Your task to perform on an android device: allow notifications from all sites in the chrome app Image 0: 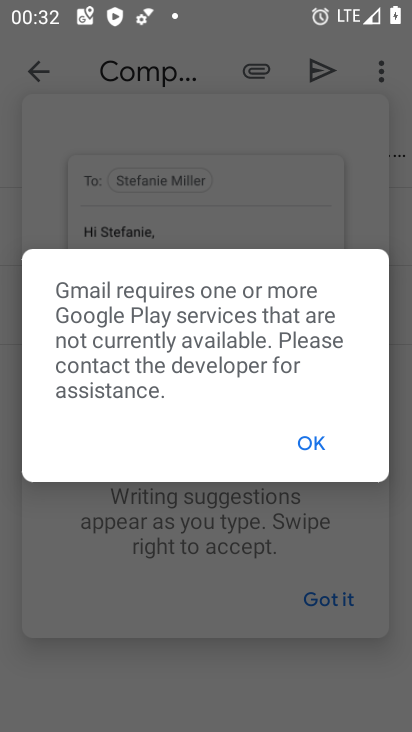
Step 0: press home button
Your task to perform on an android device: allow notifications from all sites in the chrome app Image 1: 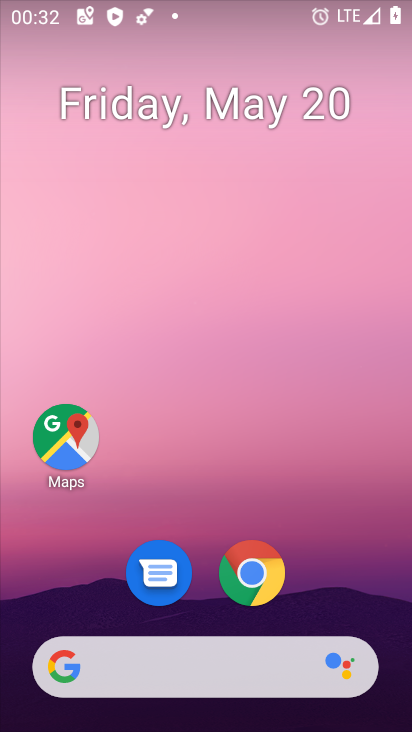
Step 1: click (252, 587)
Your task to perform on an android device: allow notifications from all sites in the chrome app Image 2: 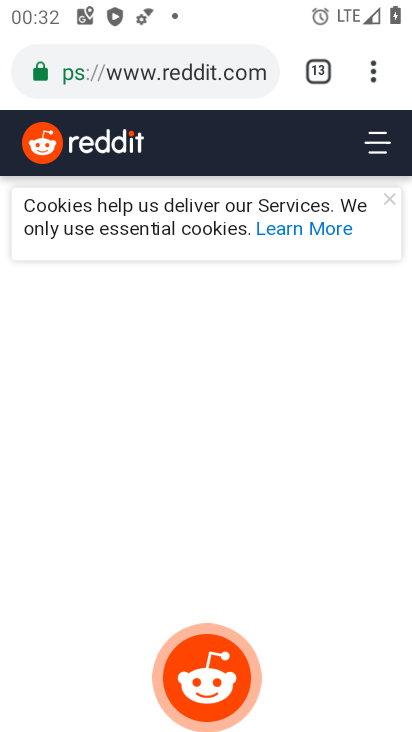
Step 2: click (353, 75)
Your task to perform on an android device: allow notifications from all sites in the chrome app Image 3: 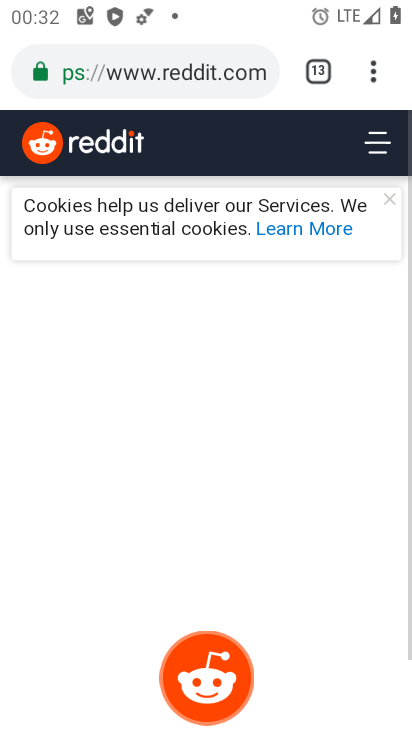
Step 3: click (368, 73)
Your task to perform on an android device: allow notifications from all sites in the chrome app Image 4: 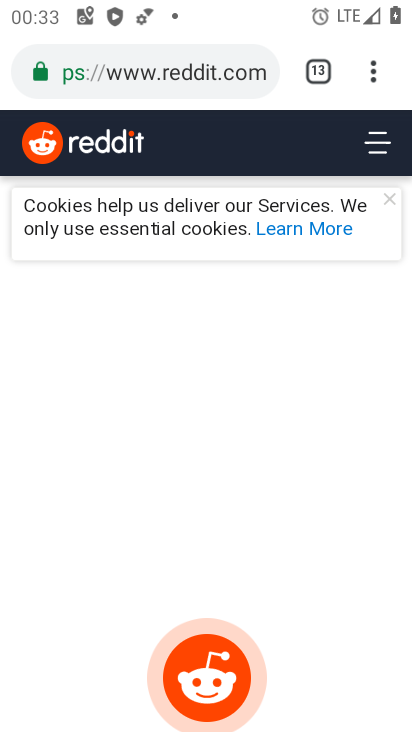
Step 4: drag from (377, 63) to (176, 578)
Your task to perform on an android device: allow notifications from all sites in the chrome app Image 5: 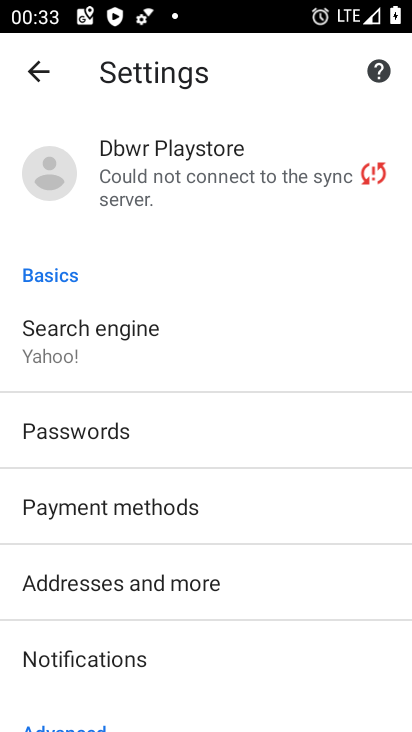
Step 5: drag from (166, 659) to (181, 363)
Your task to perform on an android device: allow notifications from all sites in the chrome app Image 6: 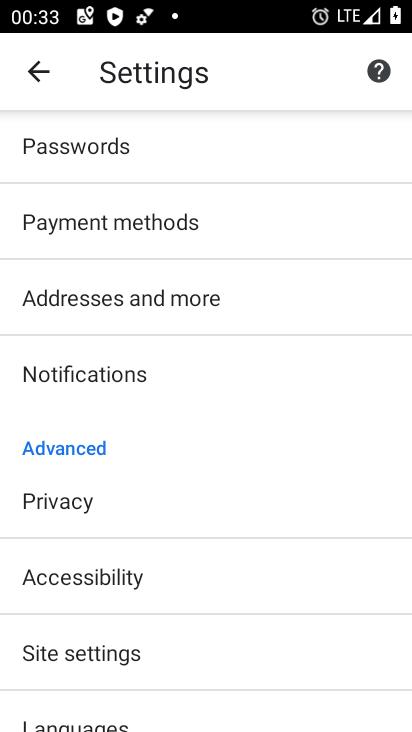
Step 6: click (98, 655)
Your task to perform on an android device: allow notifications from all sites in the chrome app Image 7: 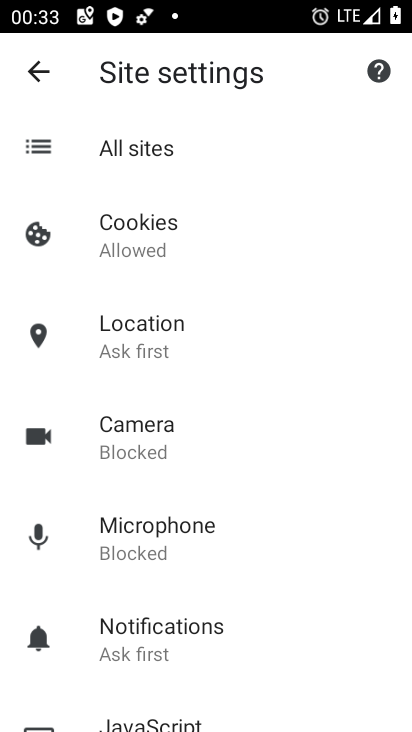
Step 7: click (178, 161)
Your task to perform on an android device: allow notifications from all sites in the chrome app Image 8: 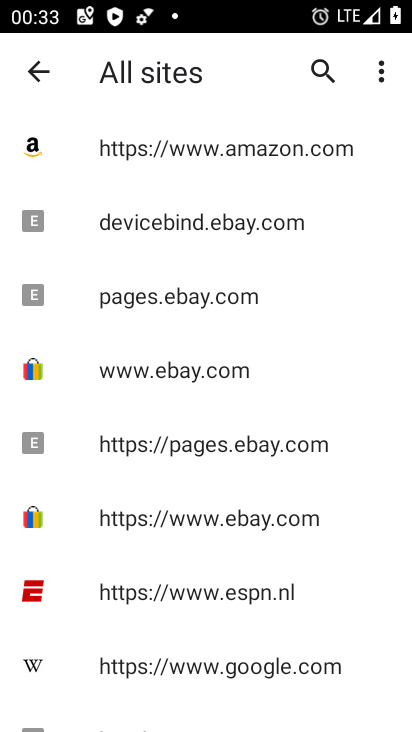
Step 8: drag from (214, 535) to (221, 497)
Your task to perform on an android device: allow notifications from all sites in the chrome app Image 9: 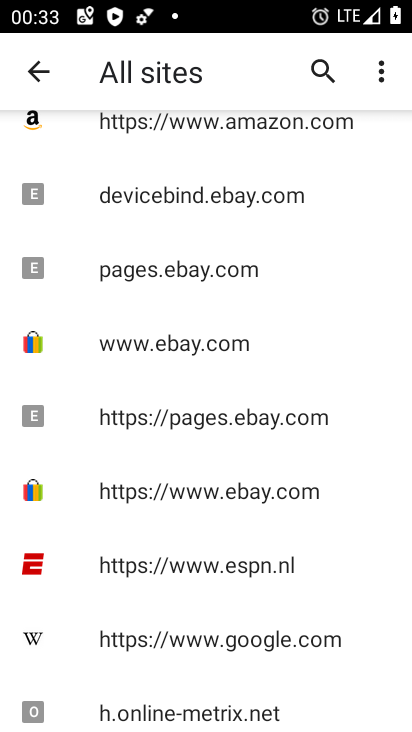
Step 9: drag from (208, 208) to (259, 541)
Your task to perform on an android device: allow notifications from all sites in the chrome app Image 10: 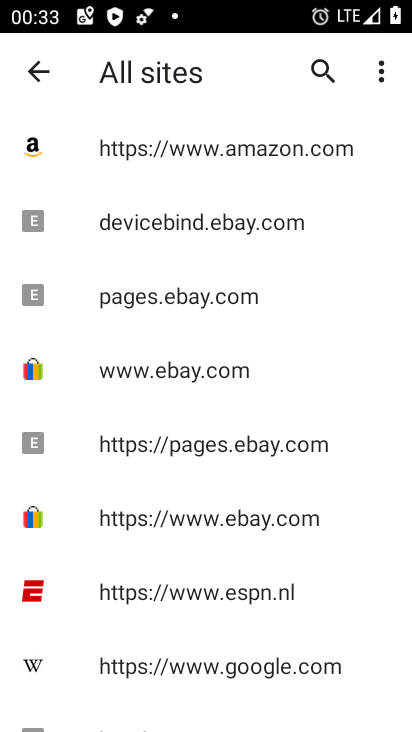
Step 10: drag from (253, 641) to (255, 352)
Your task to perform on an android device: allow notifications from all sites in the chrome app Image 11: 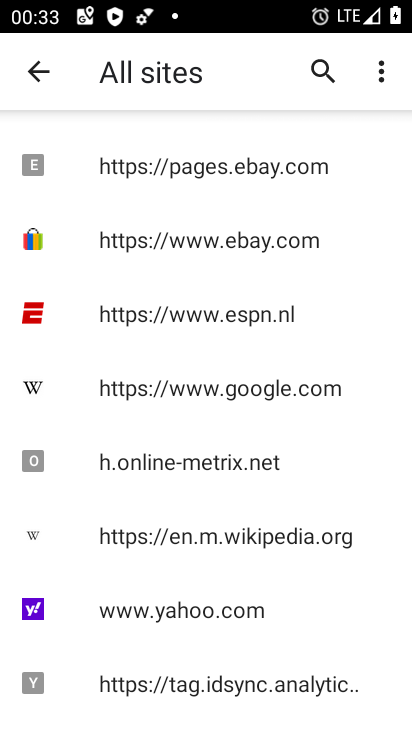
Step 11: drag from (217, 662) to (226, 493)
Your task to perform on an android device: allow notifications from all sites in the chrome app Image 12: 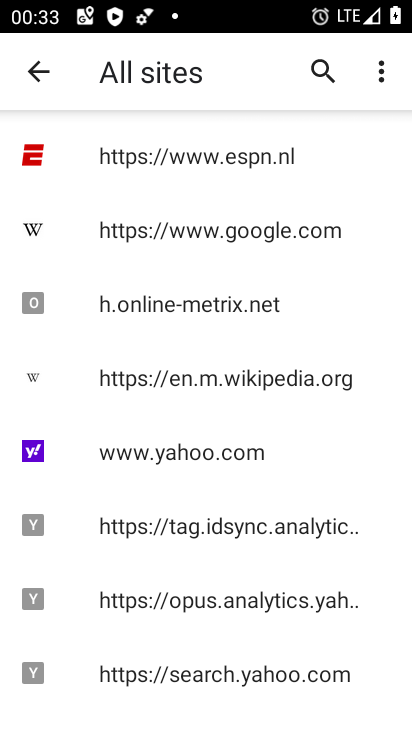
Step 12: drag from (226, 491) to (229, 389)
Your task to perform on an android device: allow notifications from all sites in the chrome app Image 13: 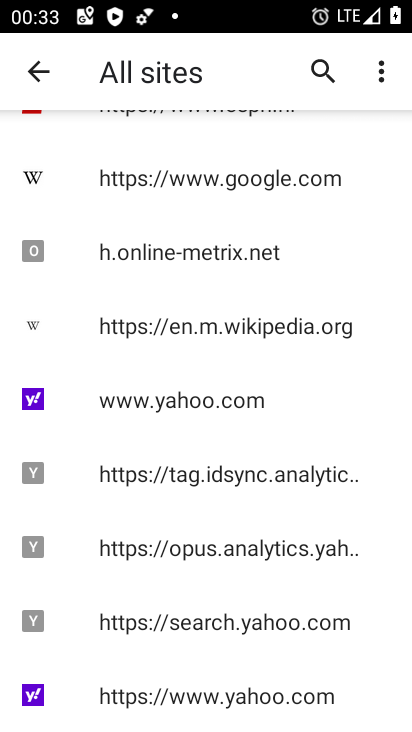
Step 13: drag from (210, 673) to (236, 408)
Your task to perform on an android device: allow notifications from all sites in the chrome app Image 14: 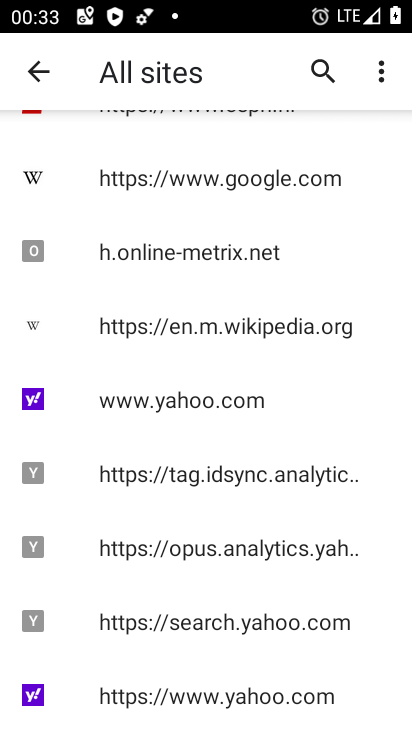
Step 14: click (200, 182)
Your task to perform on an android device: allow notifications from all sites in the chrome app Image 15: 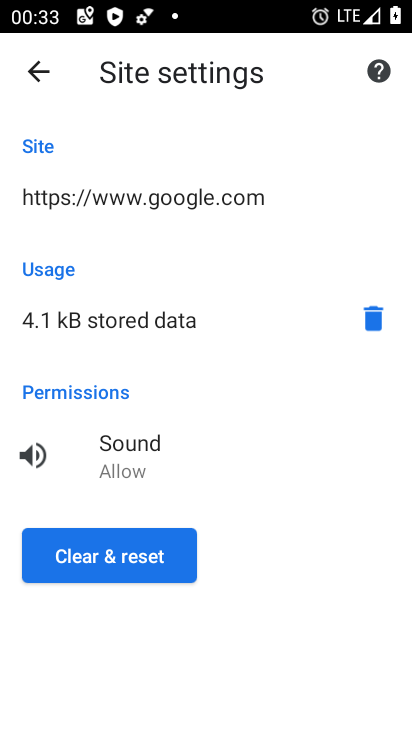
Step 15: click (37, 62)
Your task to perform on an android device: allow notifications from all sites in the chrome app Image 16: 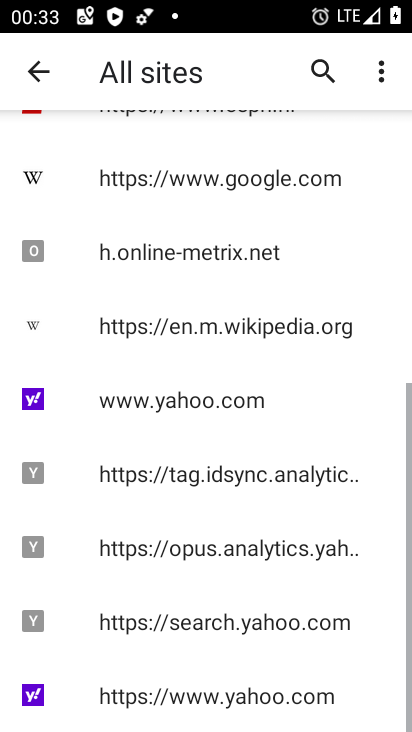
Step 16: drag from (191, 261) to (202, 614)
Your task to perform on an android device: allow notifications from all sites in the chrome app Image 17: 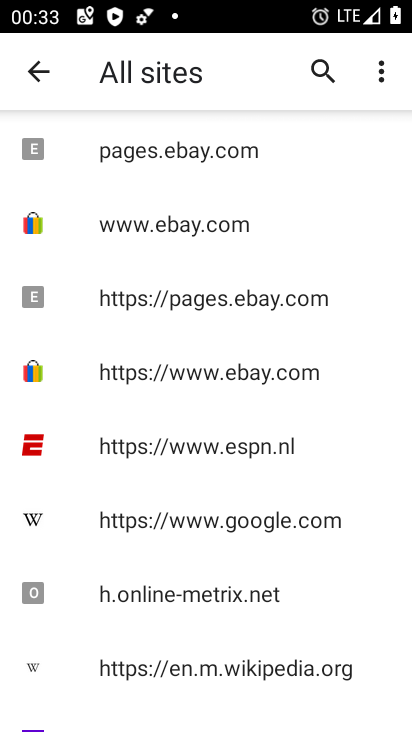
Step 17: drag from (195, 260) to (195, 639)
Your task to perform on an android device: allow notifications from all sites in the chrome app Image 18: 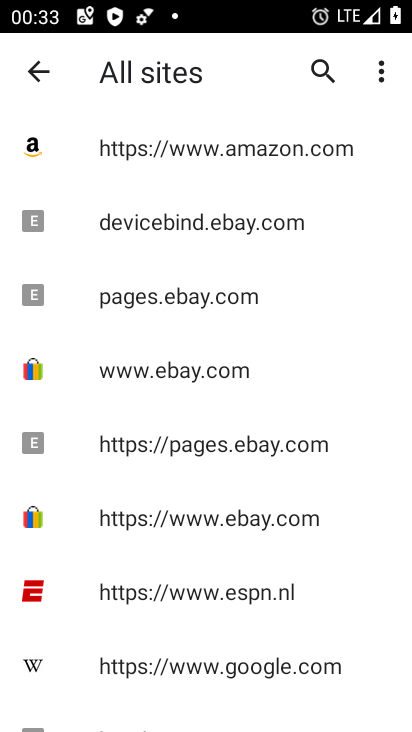
Step 18: drag from (232, 237) to (234, 605)
Your task to perform on an android device: allow notifications from all sites in the chrome app Image 19: 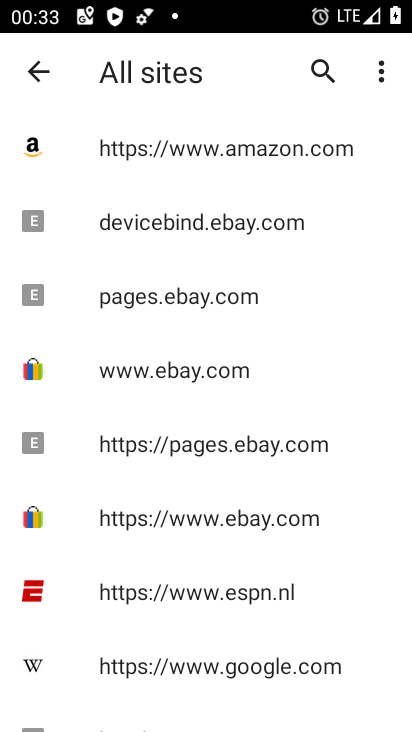
Step 19: drag from (226, 575) to (247, 485)
Your task to perform on an android device: allow notifications from all sites in the chrome app Image 20: 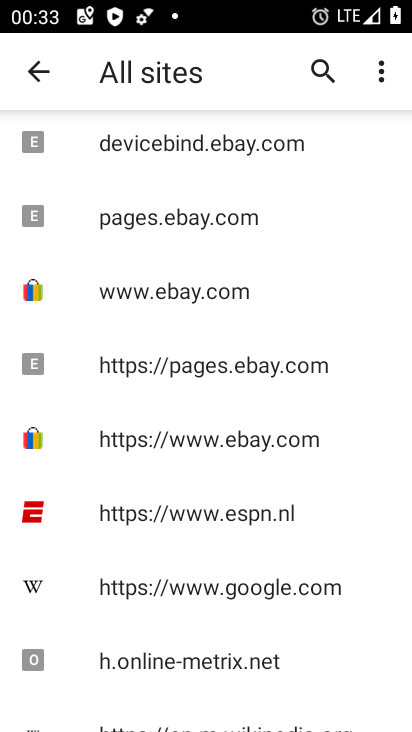
Step 20: drag from (247, 560) to (260, 396)
Your task to perform on an android device: allow notifications from all sites in the chrome app Image 21: 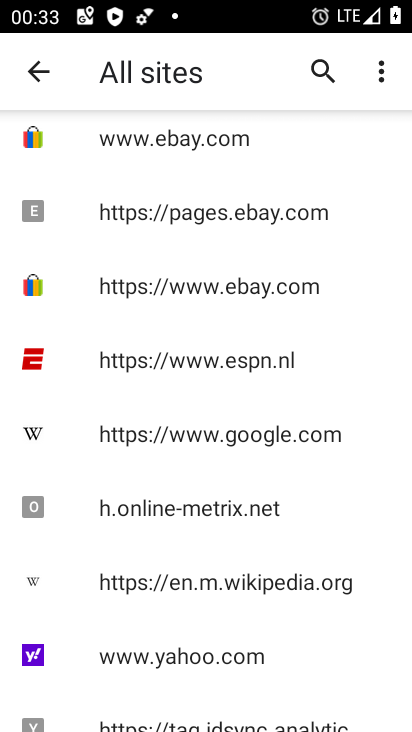
Step 21: drag from (260, 571) to (296, 356)
Your task to perform on an android device: allow notifications from all sites in the chrome app Image 22: 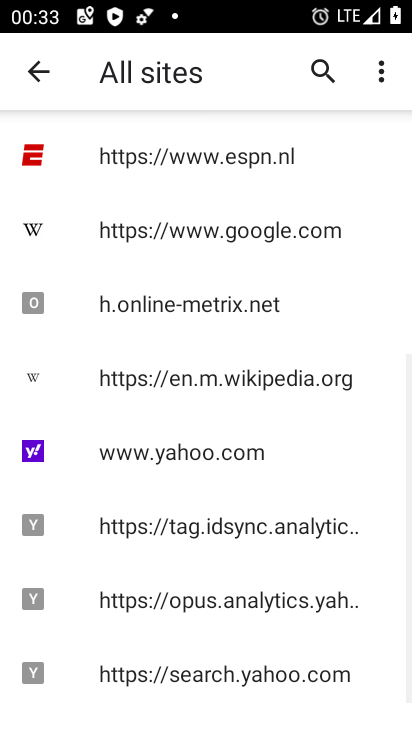
Step 22: drag from (262, 605) to (253, 329)
Your task to perform on an android device: allow notifications from all sites in the chrome app Image 23: 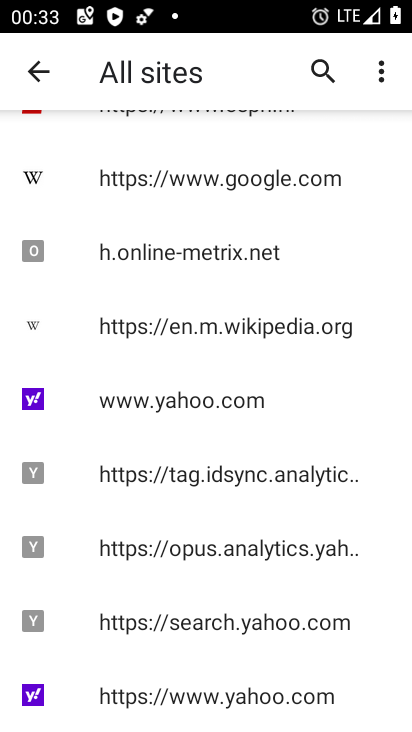
Step 23: click (249, 628)
Your task to perform on an android device: allow notifications from all sites in the chrome app Image 24: 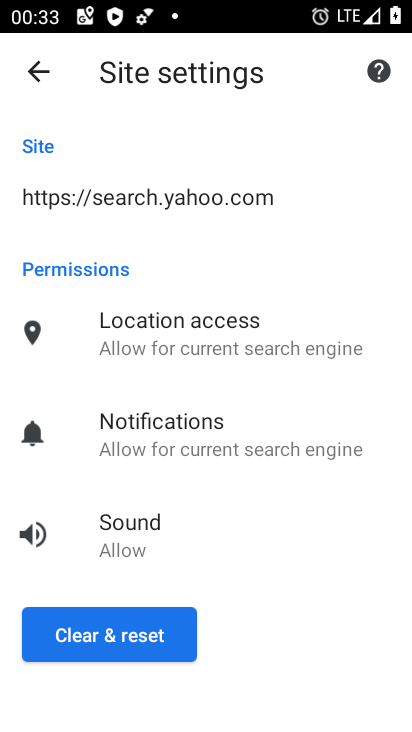
Step 24: click (203, 462)
Your task to perform on an android device: allow notifications from all sites in the chrome app Image 25: 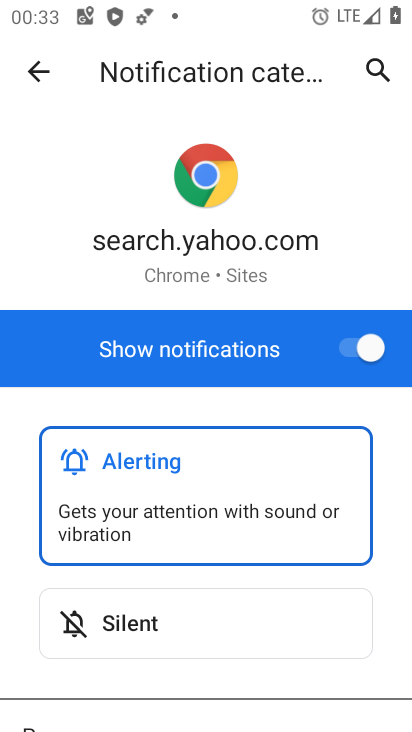
Step 25: task complete